Your task to perform on an android device: toggle show notifications on the lock screen Image 0: 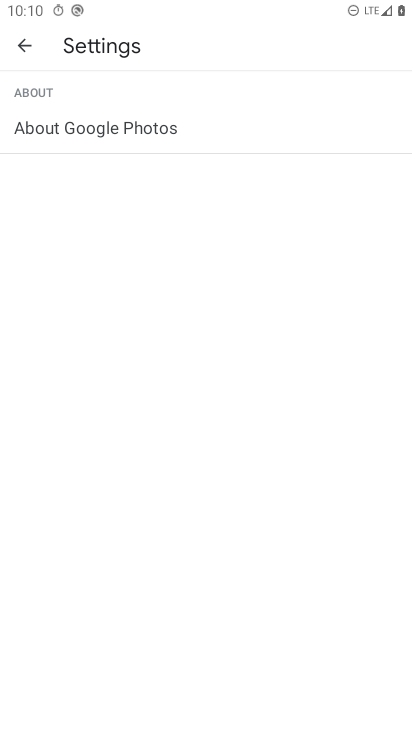
Step 0: press home button
Your task to perform on an android device: toggle show notifications on the lock screen Image 1: 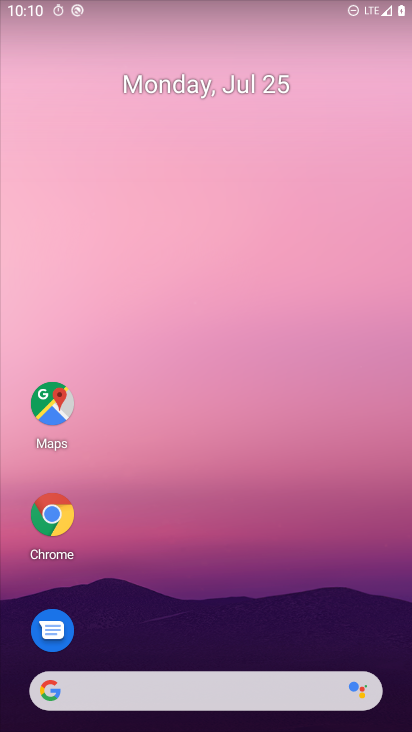
Step 1: drag from (29, 677) to (270, 168)
Your task to perform on an android device: toggle show notifications on the lock screen Image 2: 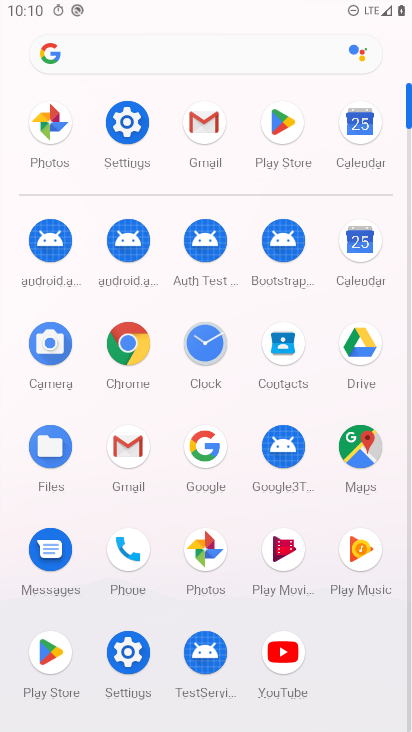
Step 2: click (125, 664)
Your task to perform on an android device: toggle show notifications on the lock screen Image 3: 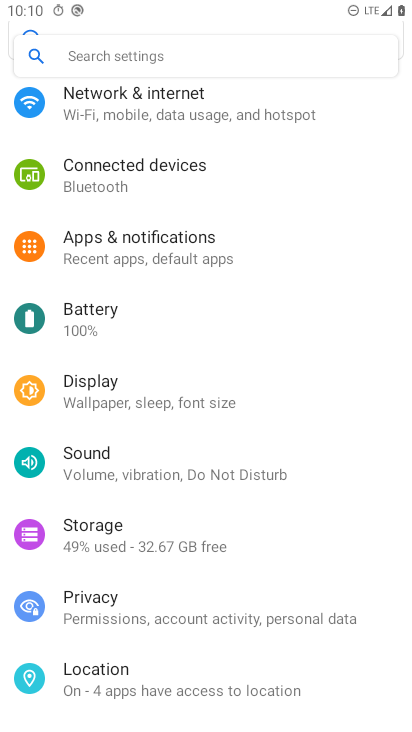
Step 3: click (166, 239)
Your task to perform on an android device: toggle show notifications on the lock screen Image 4: 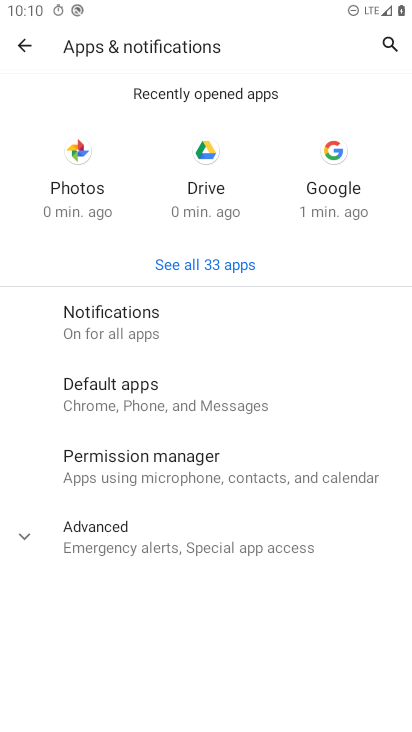
Step 4: click (73, 535)
Your task to perform on an android device: toggle show notifications on the lock screen Image 5: 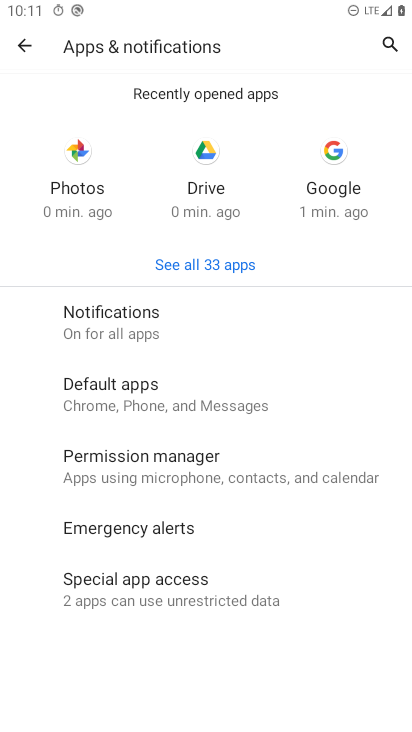
Step 5: click (130, 326)
Your task to perform on an android device: toggle show notifications on the lock screen Image 6: 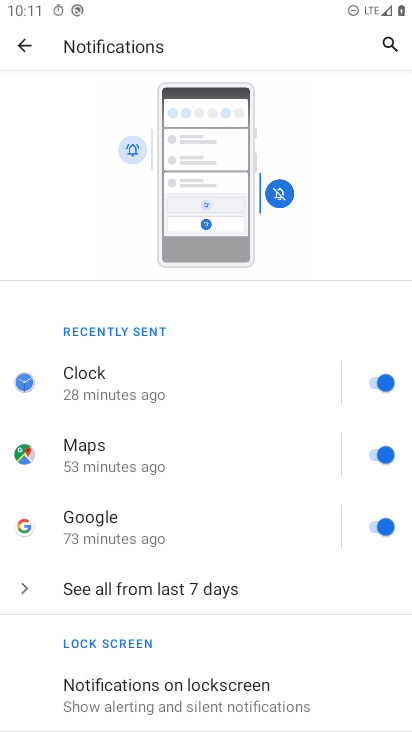
Step 6: drag from (249, 682) to (329, 264)
Your task to perform on an android device: toggle show notifications on the lock screen Image 7: 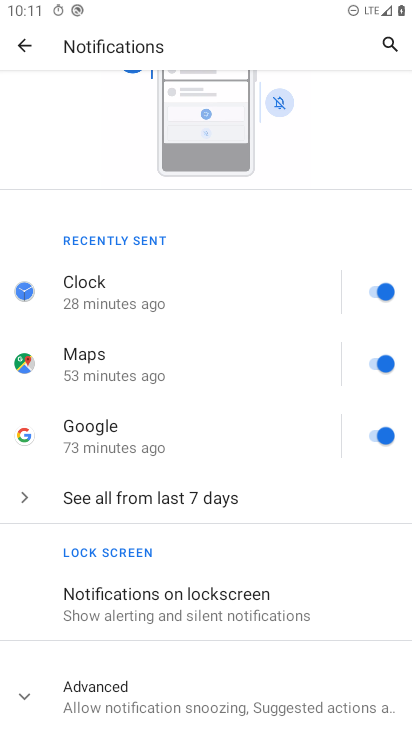
Step 7: click (180, 596)
Your task to perform on an android device: toggle show notifications on the lock screen Image 8: 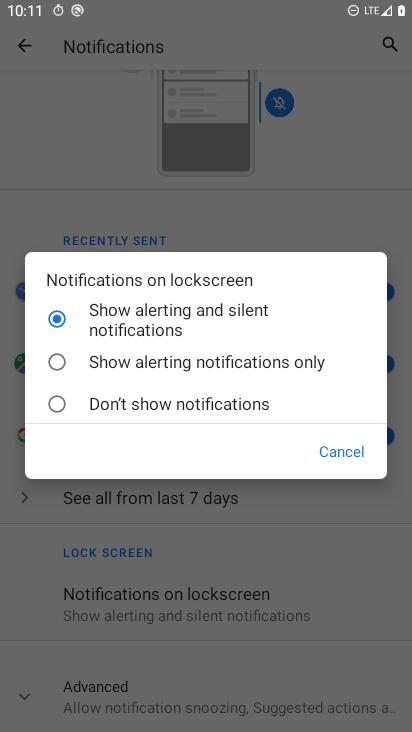
Step 8: task complete